Your task to perform on an android device: toggle wifi Image 0: 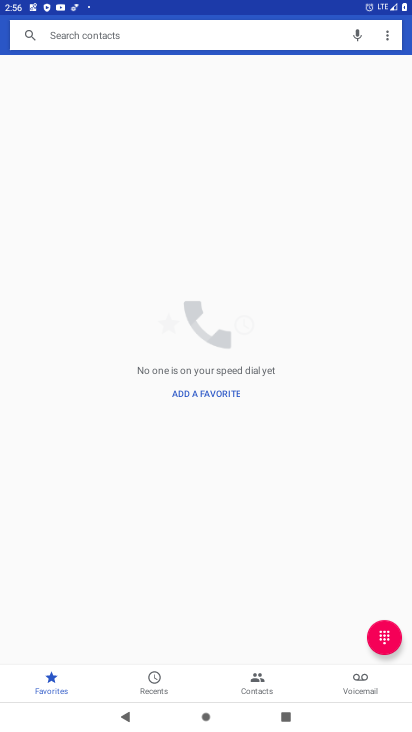
Step 0: press home button
Your task to perform on an android device: toggle wifi Image 1: 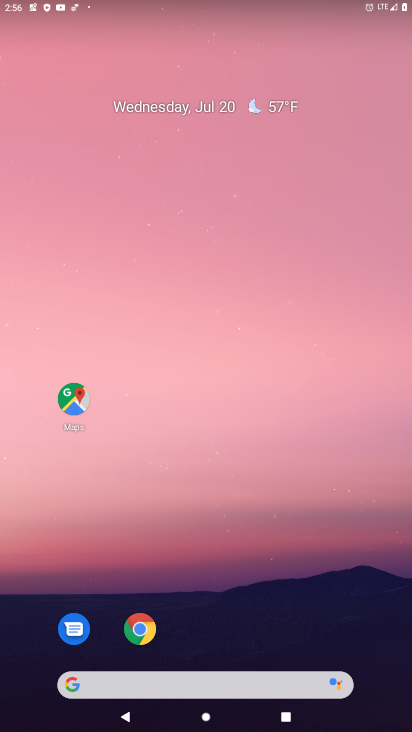
Step 1: drag from (375, 637) to (378, 124)
Your task to perform on an android device: toggle wifi Image 2: 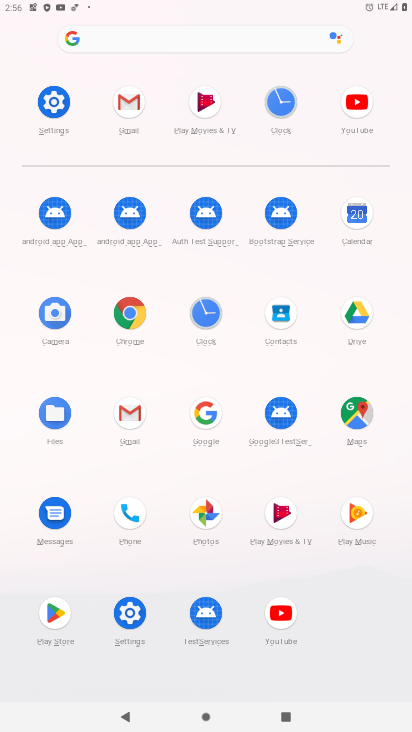
Step 2: click (128, 614)
Your task to perform on an android device: toggle wifi Image 3: 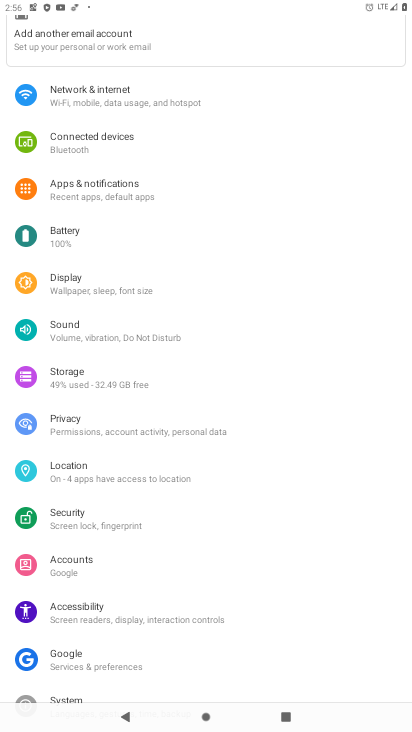
Step 3: click (83, 88)
Your task to perform on an android device: toggle wifi Image 4: 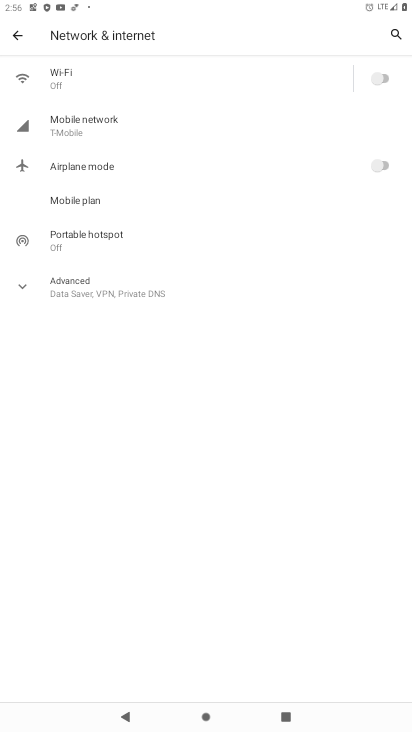
Step 4: click (386, 75)
Your task to perform on an android device: toggle wifi Image 5: 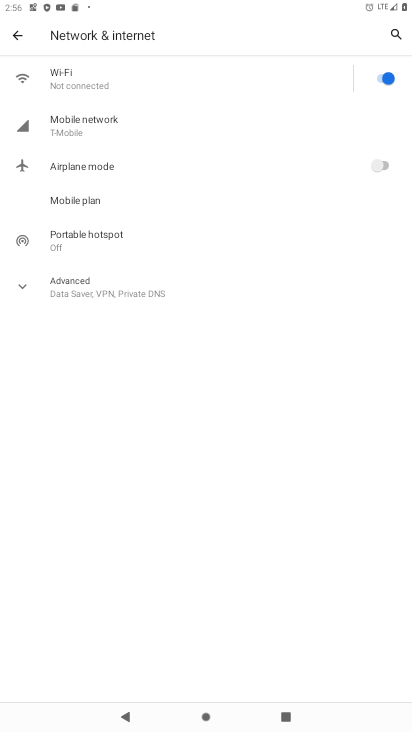
Step 5: task complete